Your task to perform on an android device: Open Google Image 0: 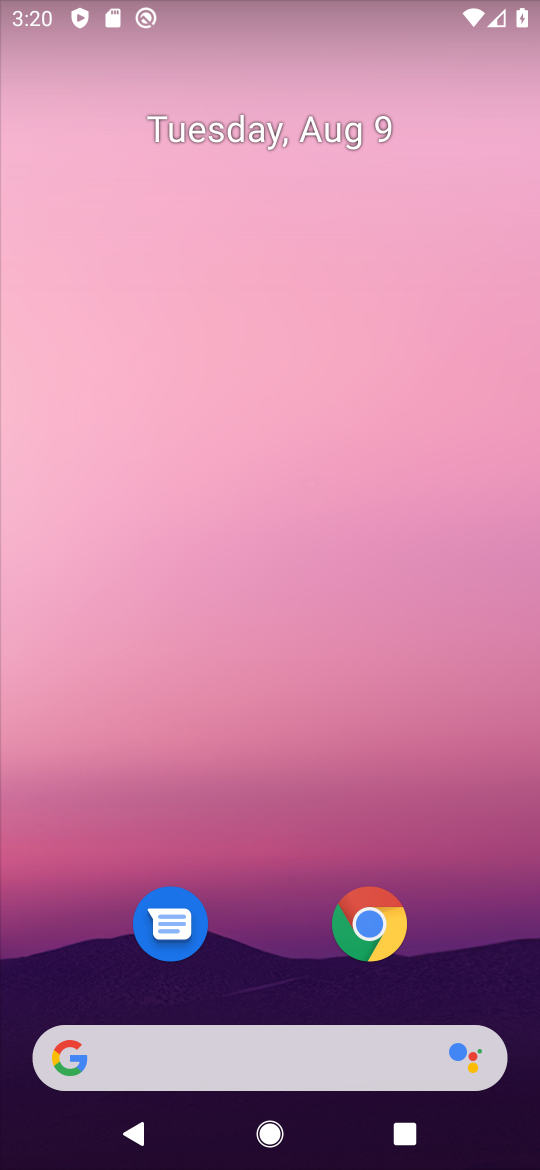
Step 0: drag from (238, 1062) to (315, 279)
Your task to perform on an android device: Open Google Image 1: 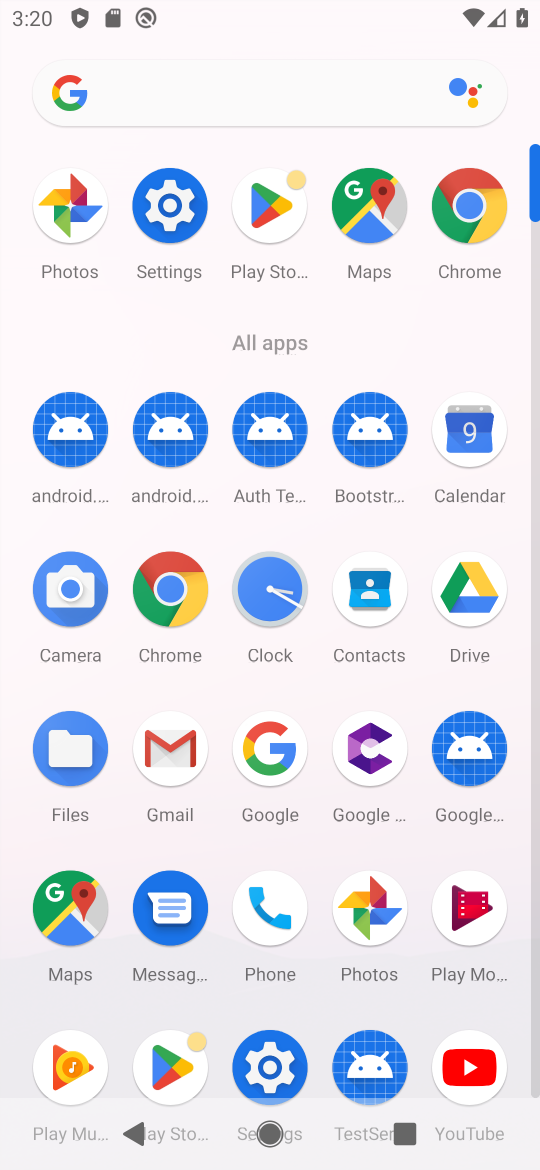
Step 1: click (261, 745)
Your task to perform on an android device: Open Google Image 2: 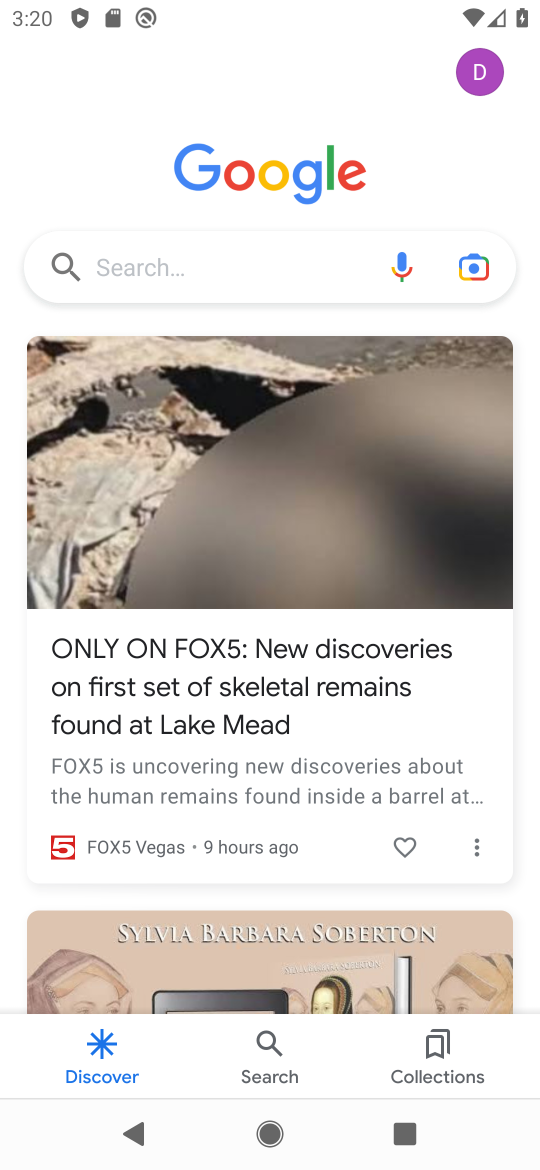
Step 2: task complete